Your task to perform on an android device: turn off smart reply in the gmail app Image 0: 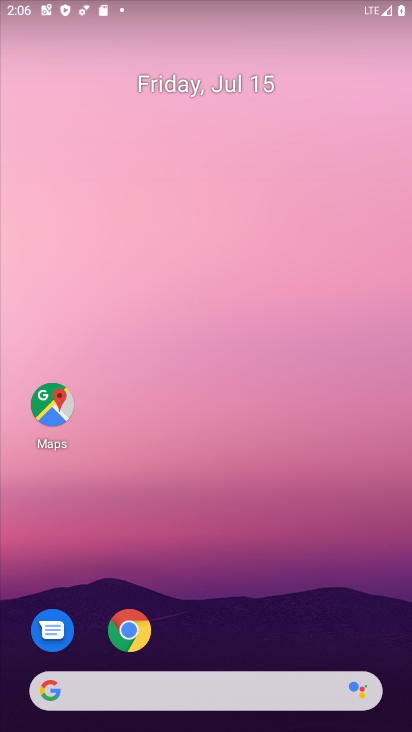
Step 0: press home button
Your task to perform on an android device: turn off smart reply in the gmail app Image 1: 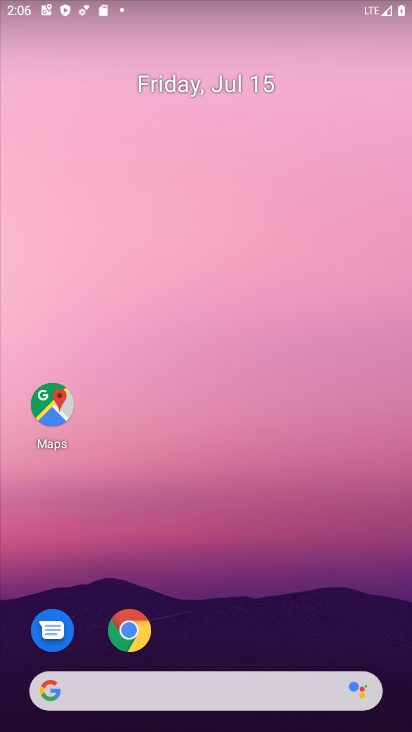
Step 1: drag from (295, 607) to (265, 83)
Your task to perform on an android device: turn off smart reply in the gmail app Image 2: 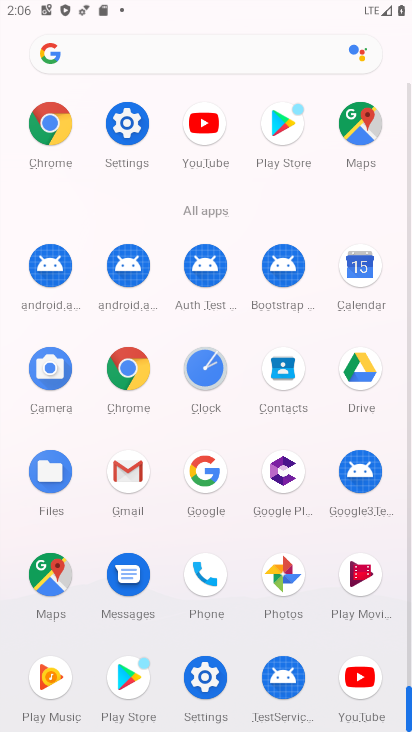
Step 2: click (126, 471)
Your task to perform on an android device: turn off smart reply in the gmail app Image 3: 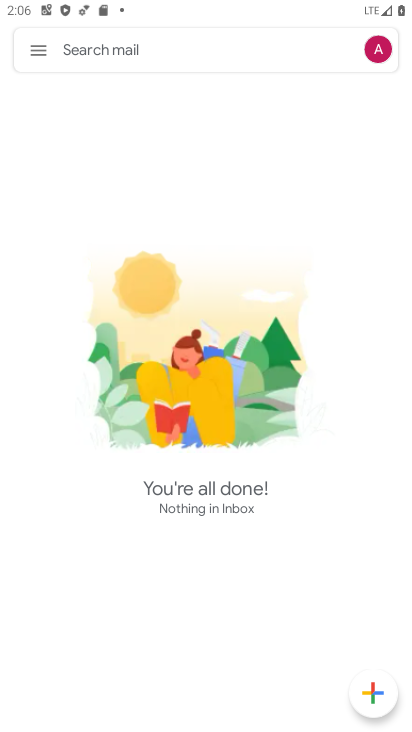
Step 3: click (33, 51)
Your task to perform on an android device: turn off smart reply in the gmail app Image 4: 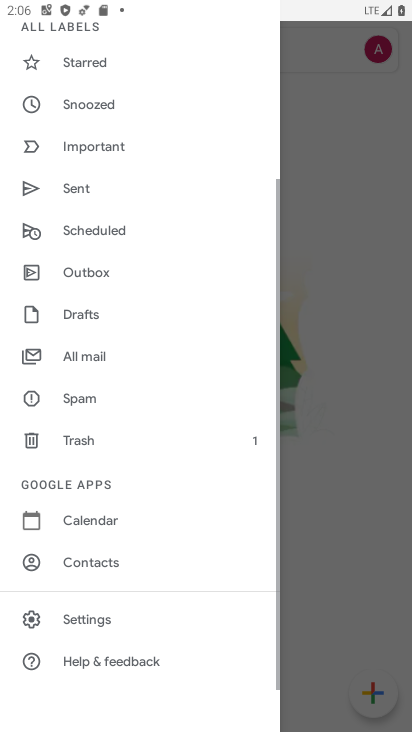
Step 4: click (99, 619)
Your task to perform on an android device: turn off smart reply in the gmail app Image 5: 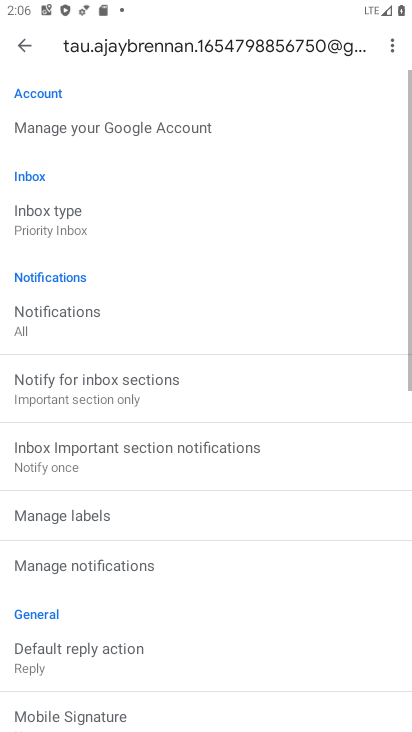
Step 5: drag from (209, 669) to (245, 398)
Your task to perform on an android device: turn off smart reply in the gmail app Image 6: 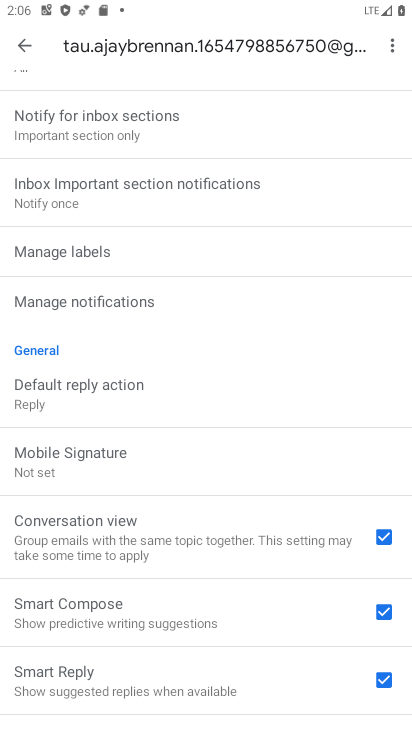
Step 6: click (381, 684)
Your task to perform on an android device: turn off smart reply in the gmail app Image 7: 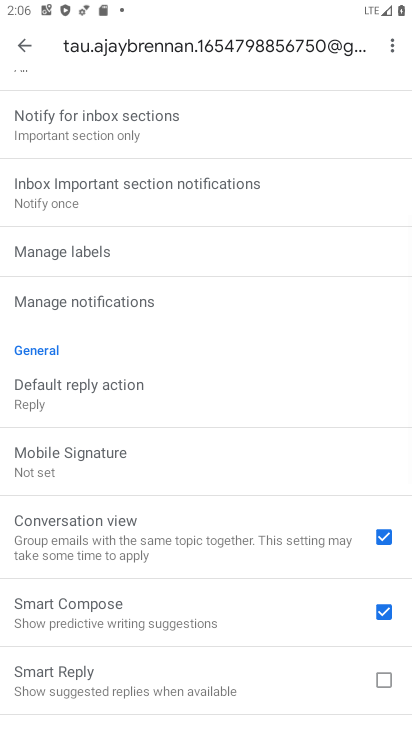
Step 7: task complete